Your task to perform on an android device: Open display settings Image 0: 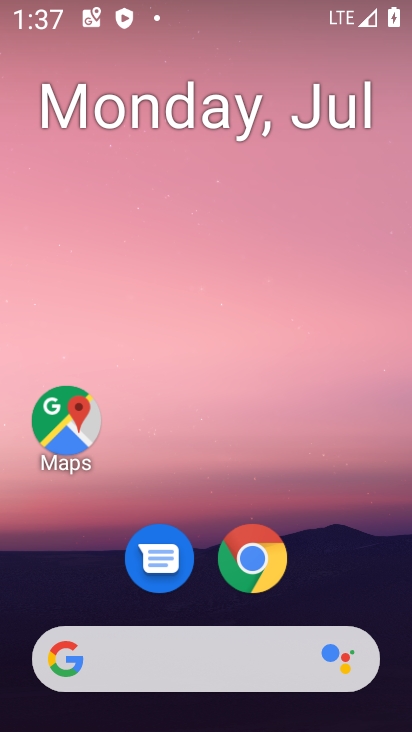
Step 0: drag from (327, 501) to (332, 47)
Your task to perform on an android device: Open display settings Image 1: 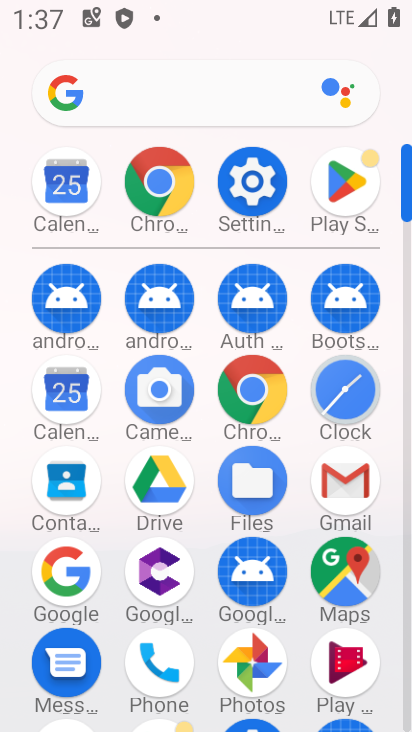
Step 1: click (258, 189)
Your task to perform on an android device: Open display settings Image 2: 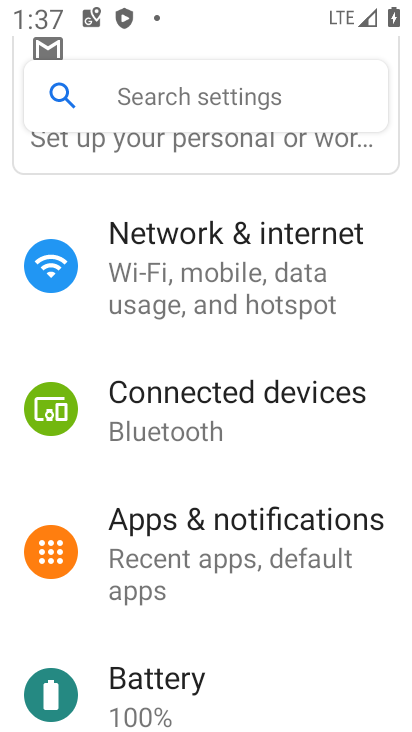
Step 2: drag from (340, 483) to (340, 355)
Your task to perform on an android device: Open display settings Image 3: 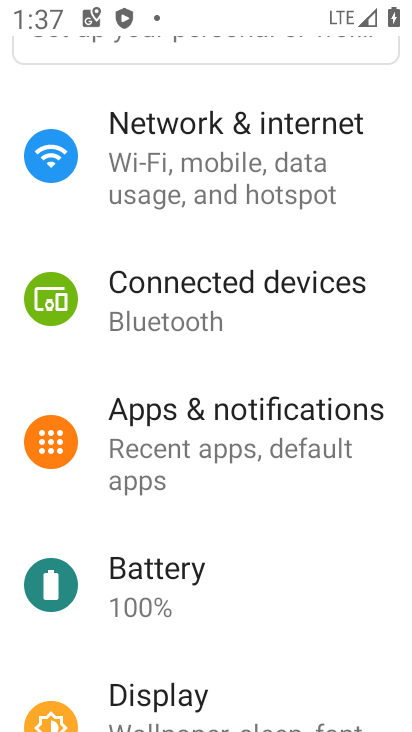
Step 3: drag from (344, 549) to (343, 447)
Your task to perform on an android device: Open display settings Image 4: 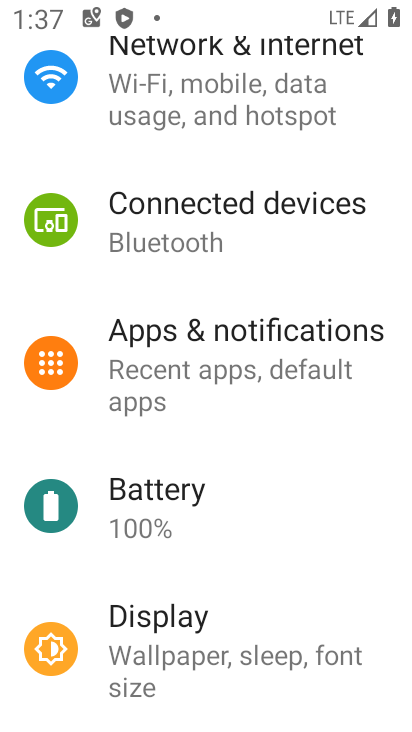
Step 4: drag from (339, 570) to (345, 463)
Your task to perform on an android device: Open display settings Image 5: 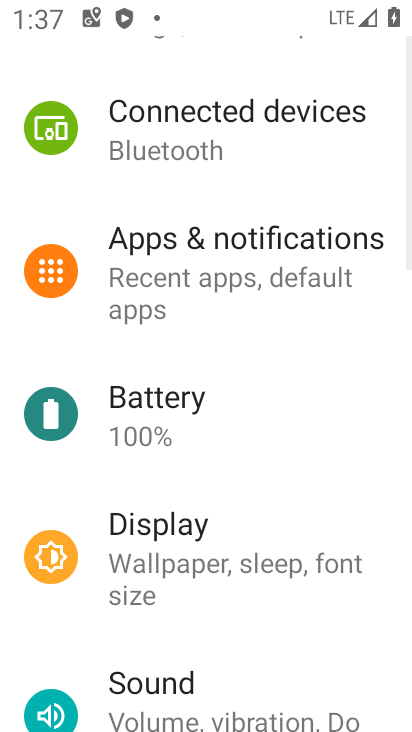
Step 5: drag from (318, 630) to (313, 470)
Your task to perform on an android device: Open display settings Image 6: 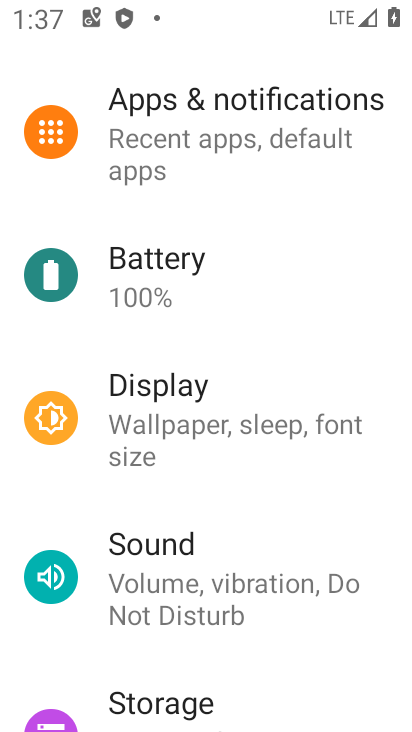
Step 6: click (253, 423)
Your task to perform on an android device: Open display settings Image 7: 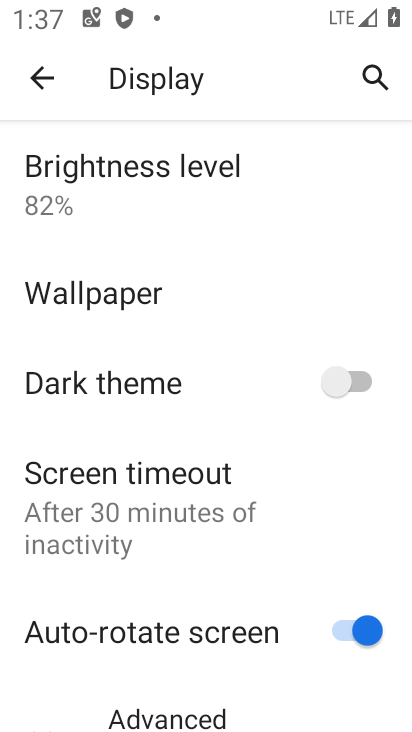
Step 7: drag from (269, 581) to (264, 492)
Your task to perform on an android device: Open display settings Image 8: 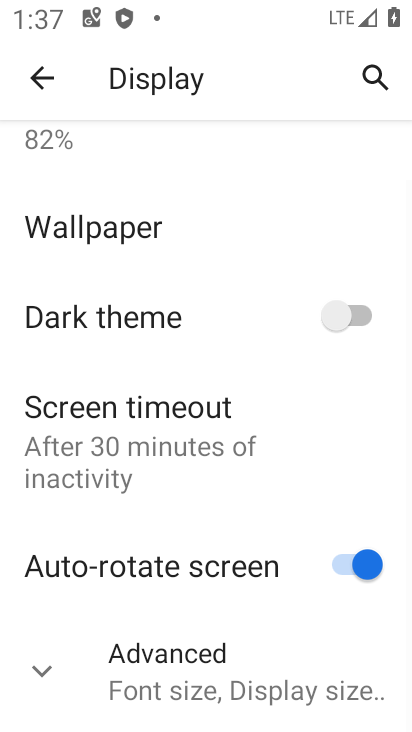
Step 8: click (267, 646)
Your task to perform on an android device: Open display settings Image 9: 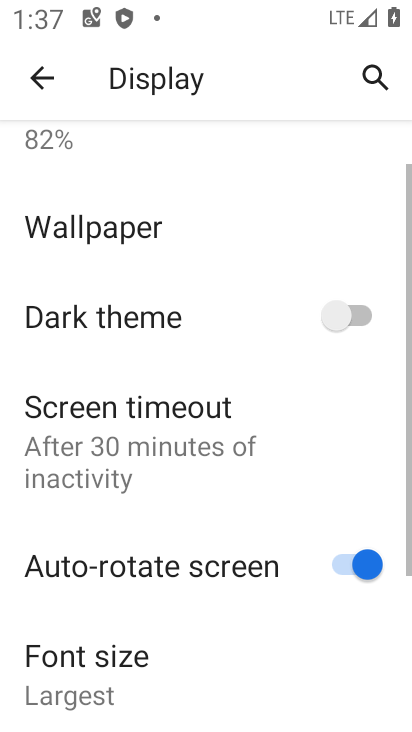
Step 9: task complete